Your task to perform on an android device: Is it going to rain tomorrow? Image 0: 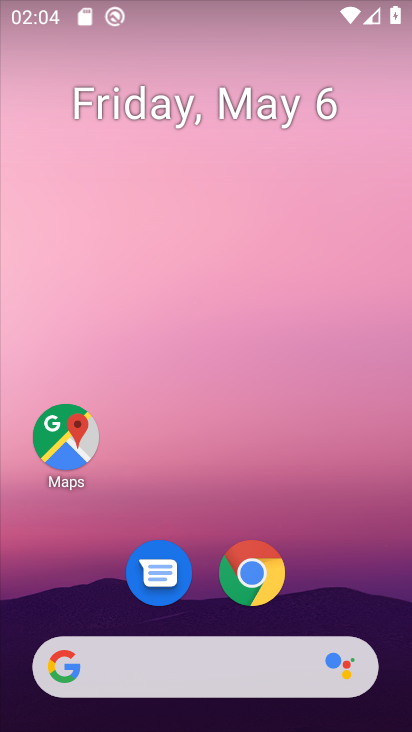
Step 0: drag from (338, 495) to (332, 189)
Your task to perform on an android device: Is it going to rain tomorrow? Image 1: 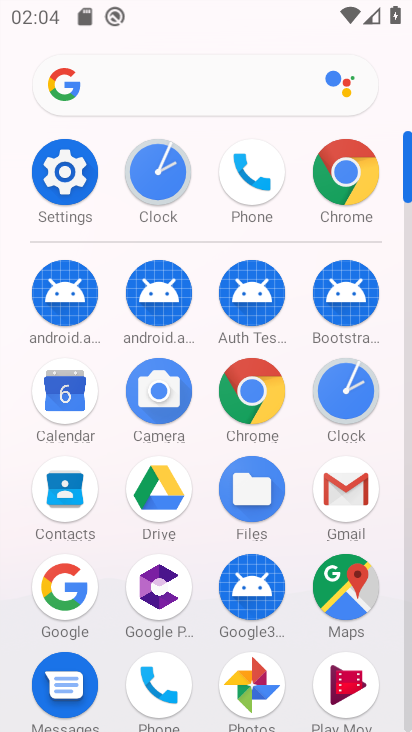
Step 1: click (252, 406)
Your task to perform on an android device: Is it going to rain tomorrow? Image 2: 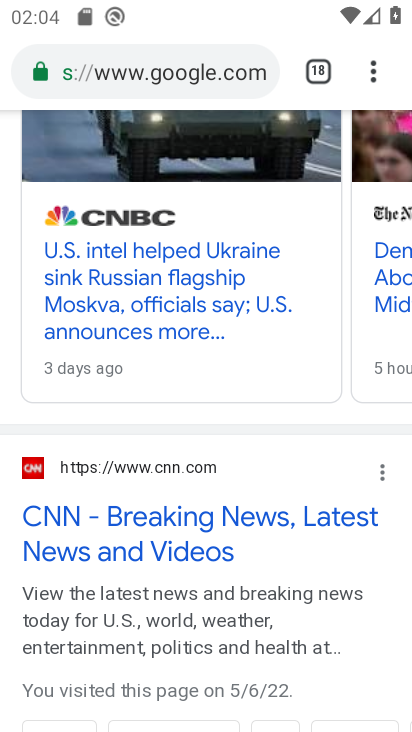
Step 2: drag from (331, 211) to (272, 486)
Your task to perform on an android device: Is it going to rain tomorrow? Image 3: 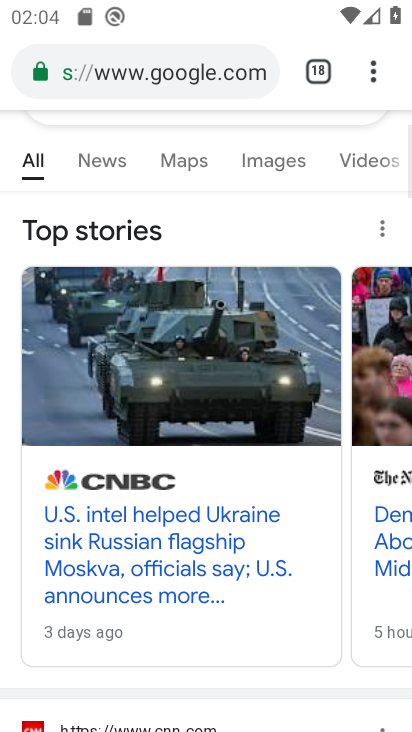
Step 3: click (358, 64)
Your task to perform on an android device: Is it going to rain tomorrow? Image 4: 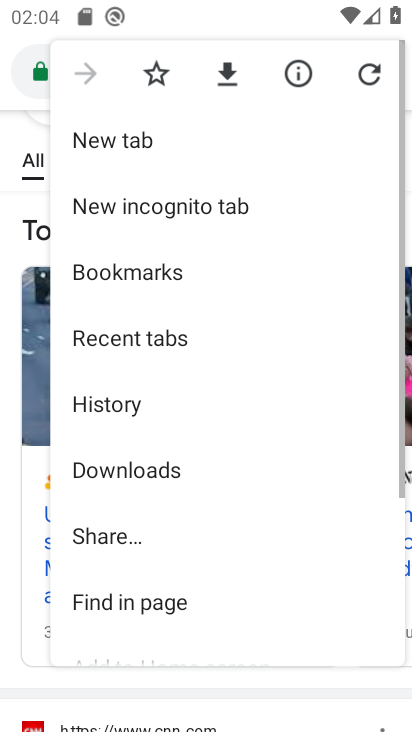
Step 4: click (164, 136)
Your task to perform on an android device: Is it going to rain tomorrow? Image 5: 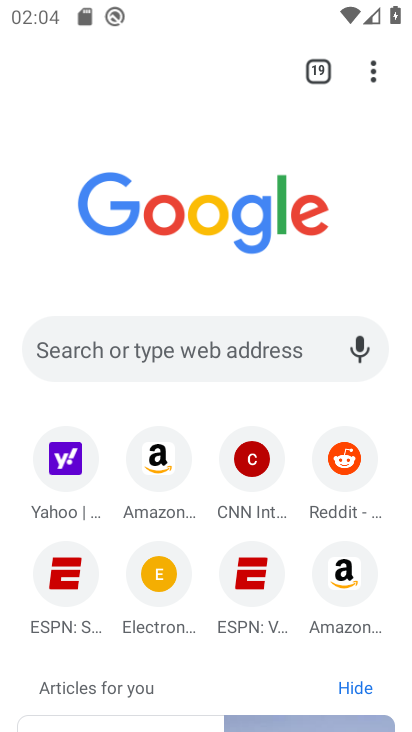
Step 5: click (190, 346)
Your task to perform on an android device: Is it going to rain tomorrow? Image 6: 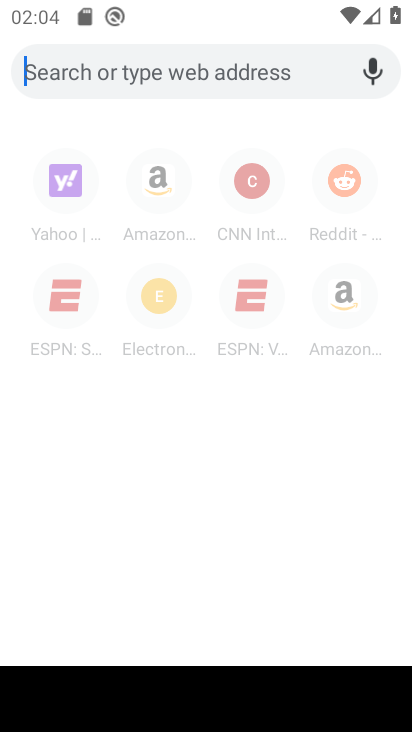
Step 6: type "Is it going to rain tomorrow?"
Your task to perform on an android device: Is it going to rain tomorrow? Image 7: 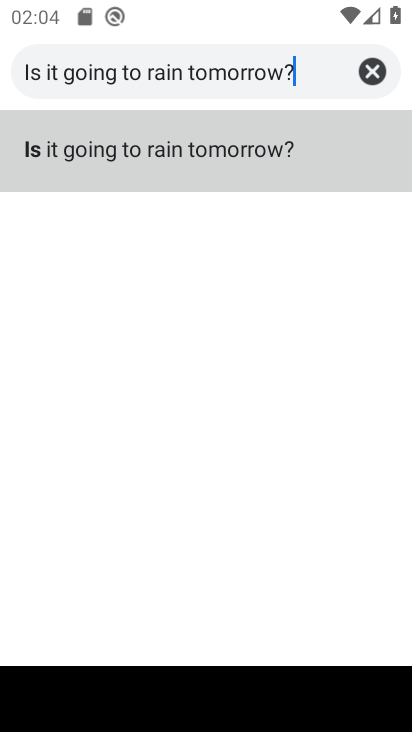
Step 7: click (214, 157)
Your task to perform on an android device: Is it going to rain tomorrow? Image 8: 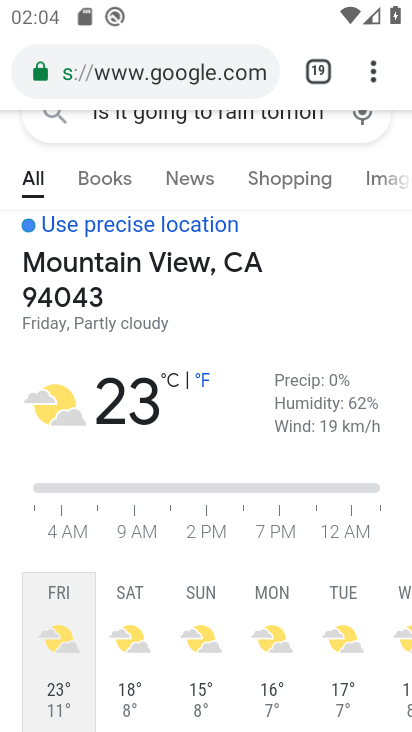
Step 8: task complete